Your task to perform on an android device: open app "Microsoft Outlook" Image 0: 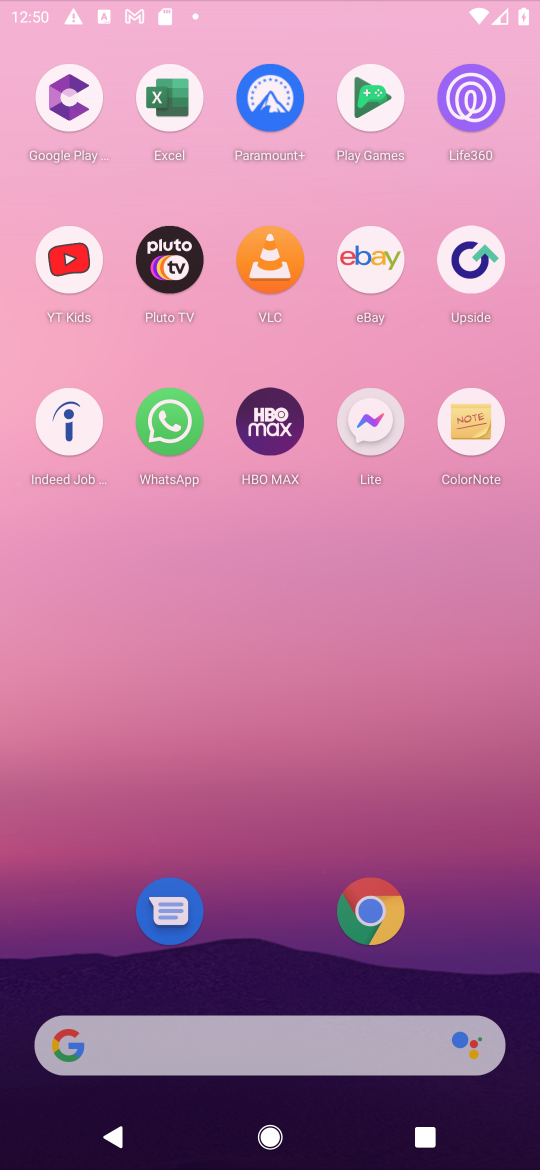
Step 0: press home button
Your task to perform on an android device: open app "Microsoft Outlook" Image 1: 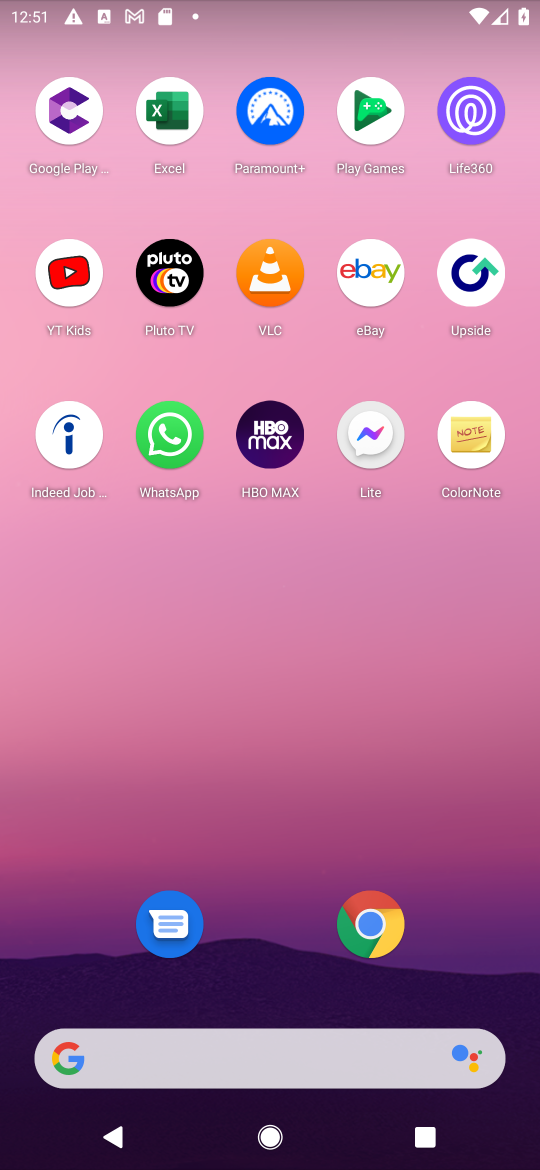
Step 1: drag from (463, 949) to (442, 182)
Your task to perform on an android device: open app "Microsoft Outlook" Image 2: 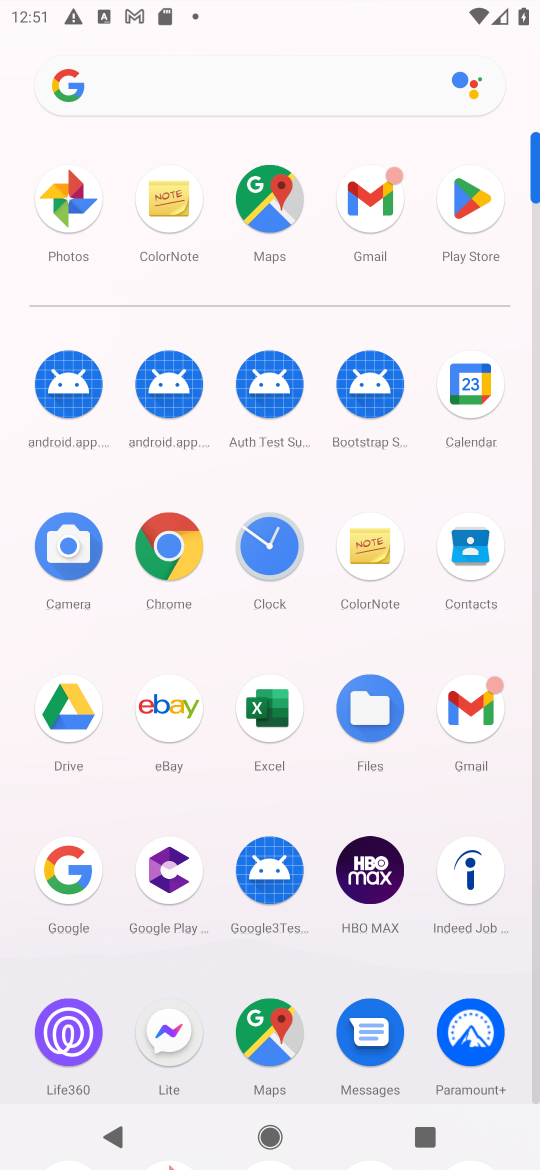
Step 2: click (458, 203)
Your task to perform on an android device: open app "Microsoft Outlook" Image 3: 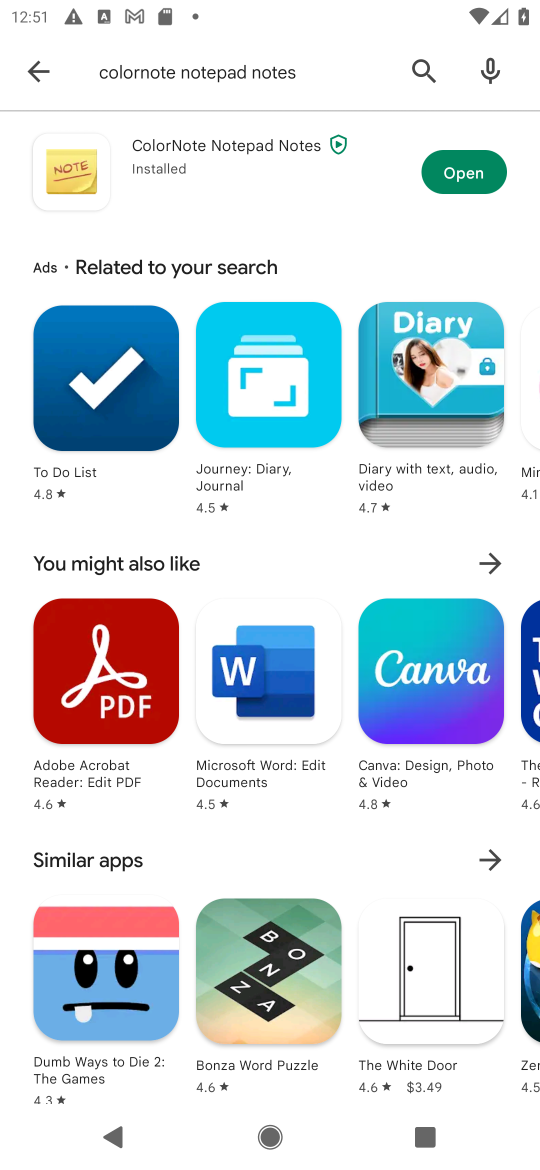
Step 3: press back button
Your task to perform on an android device: open app "Microsoft Outlook" Image 4: 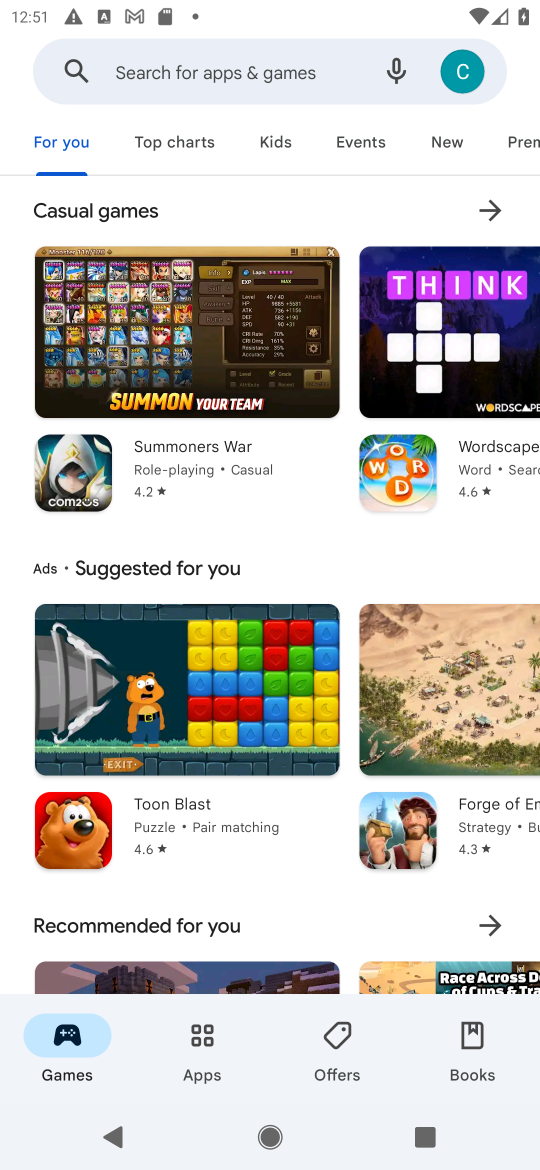
Step 4: click (178, 79)
Your task to perform on an android device: open app "Microsoft Outlook" Image 5: 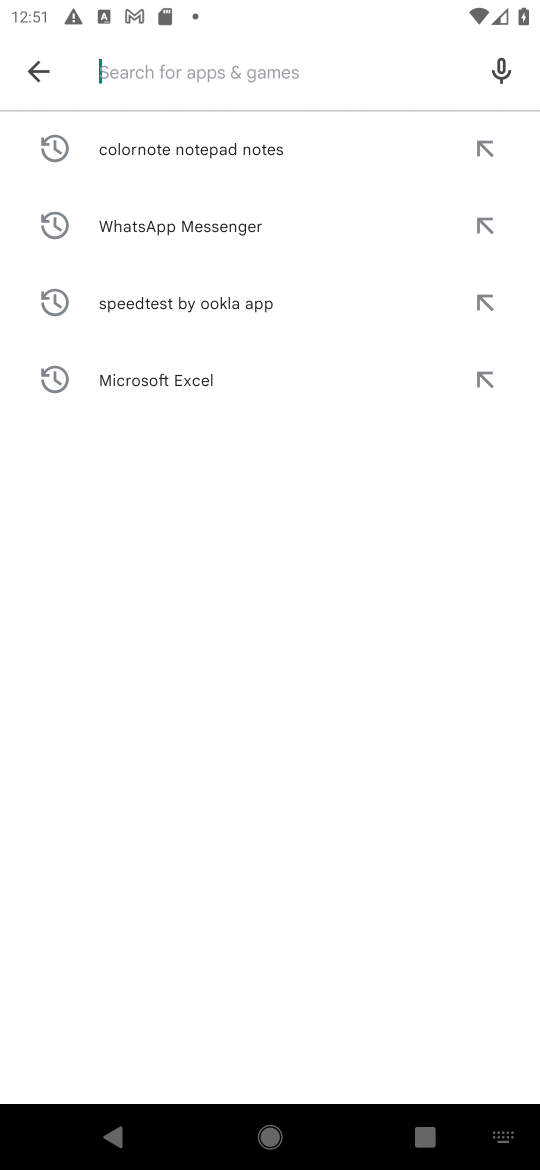
Step 5: press enter
Your task to perform on an android device: open app "Microsoft Outlook" Image 6: 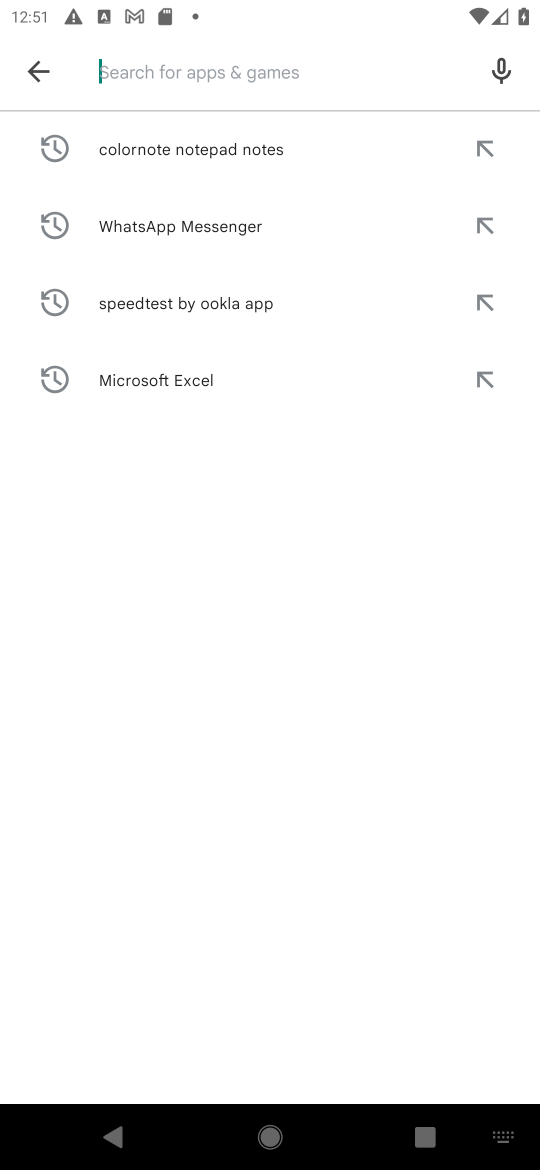
Step 6: type "Microsoft Outlook"
Your task to perform on an android device: open app "Microsoft Outlook" Image 7: 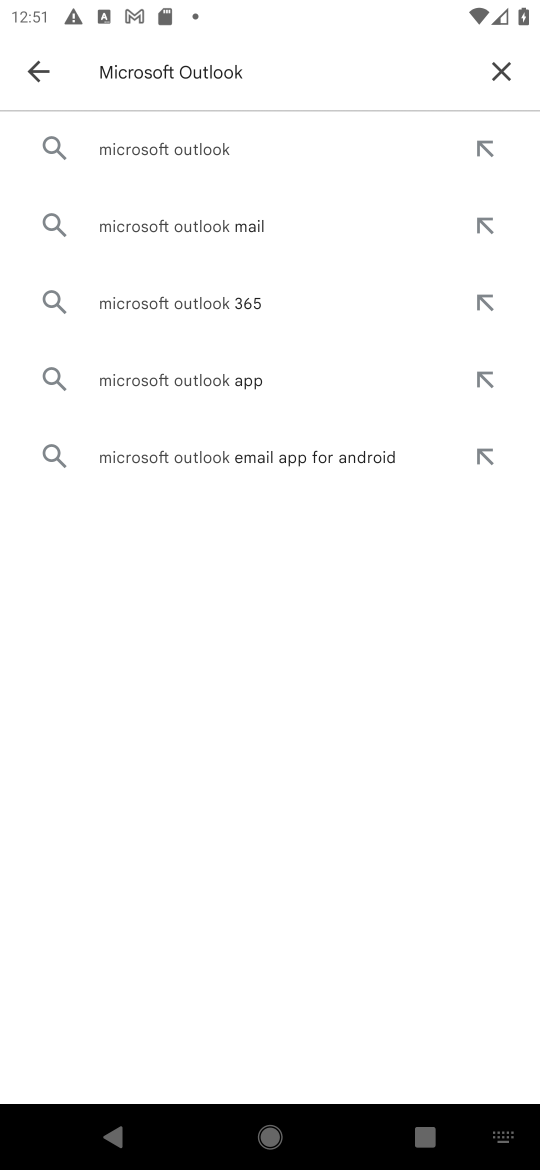
Step 7: click (221, 146)
Your task to perform on an android device: open app "Microsoft Outlook" Image 8: 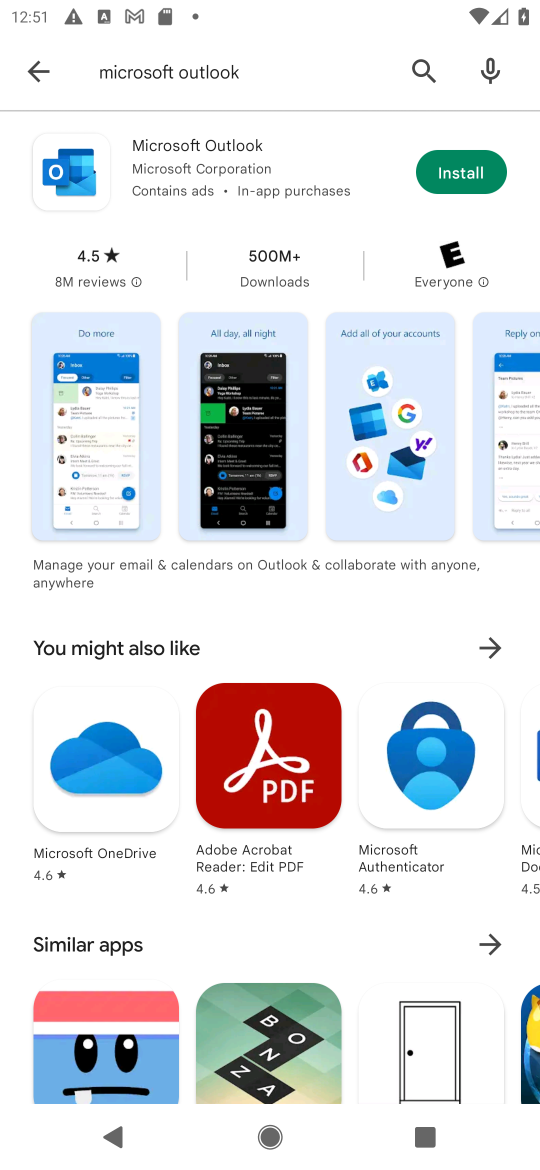
Step 8: task complete